Your task to perform on an android device: What is the news today? Image 0: 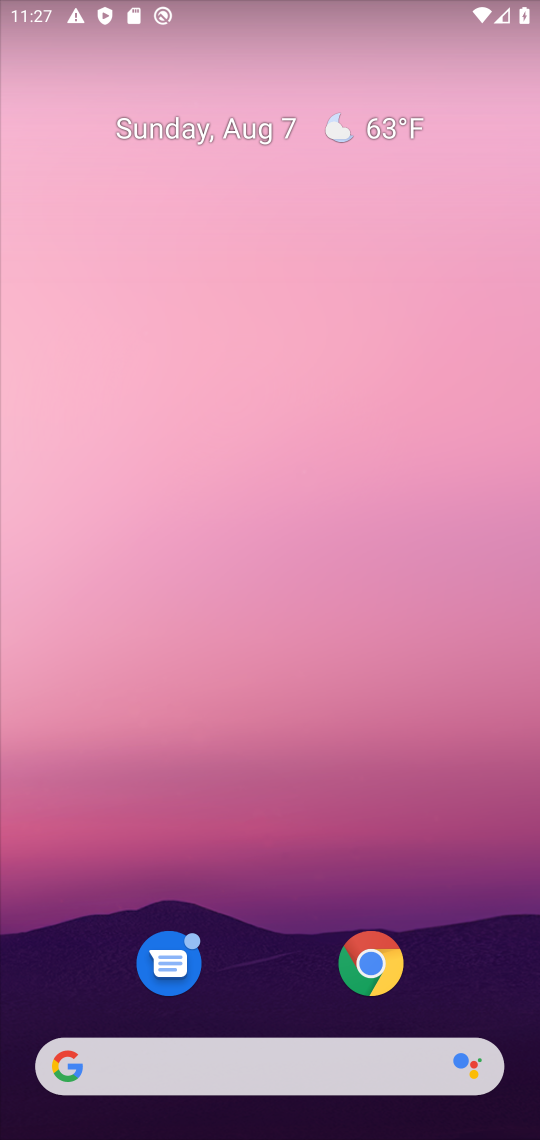
Step 0: drag from (438, 969) to (253, 89)
Your task to perform on an android device: What is the news today? Image 1: 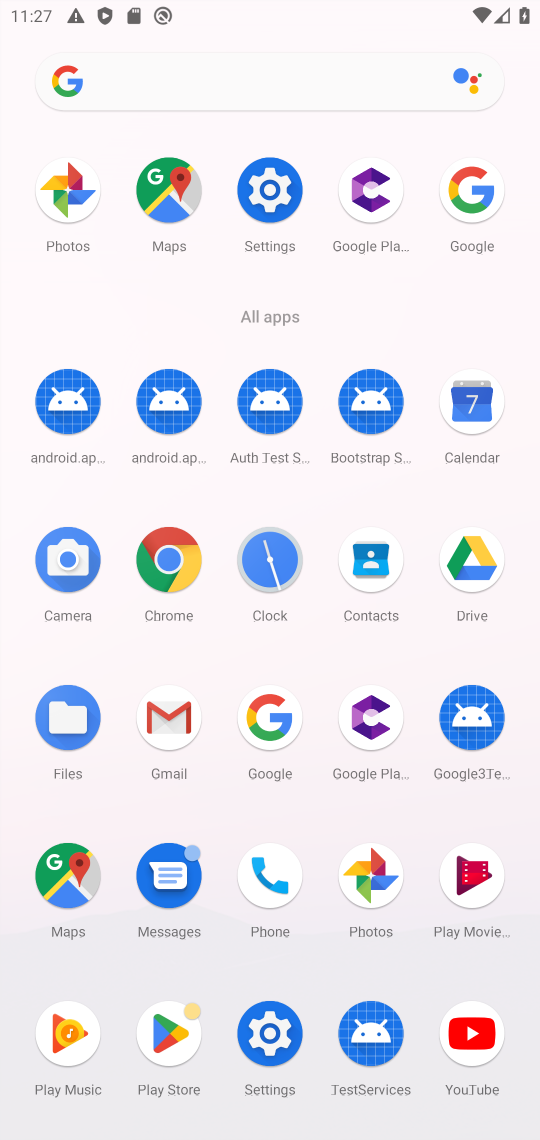
Step 1: click (276, 725)
Your task to perform on an android device: What is the news today? Image 2: 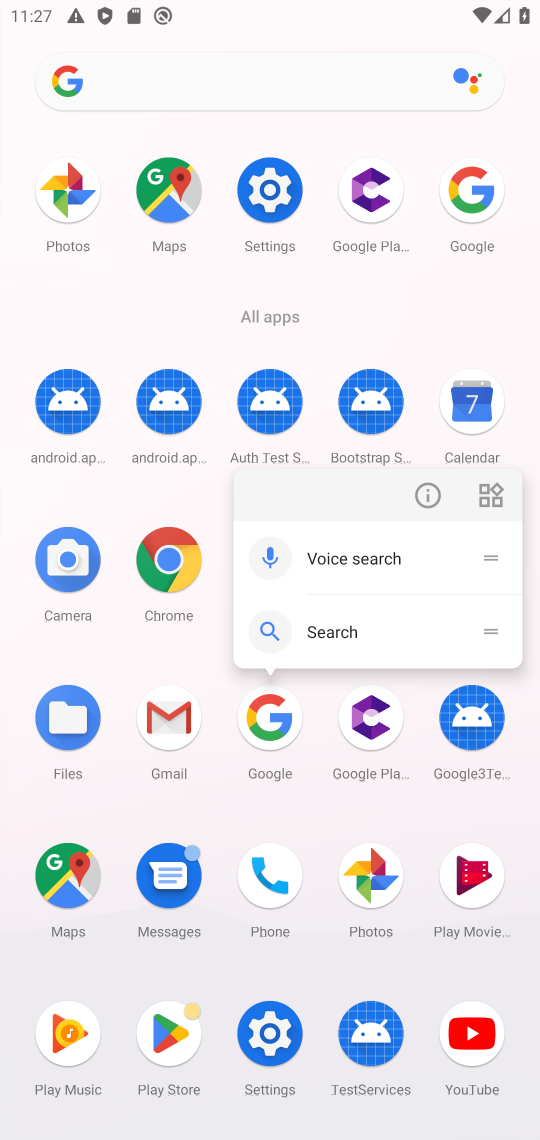
Step 2: click (276, 725)
Your task to perform on an android device: What is the news today? Image 3: 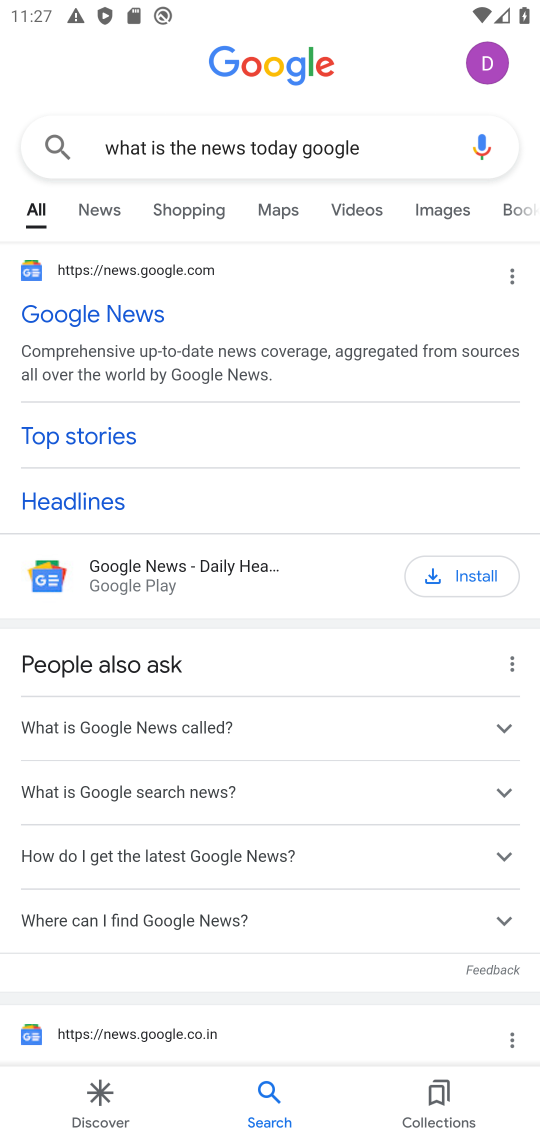
Step 3: press back button
Your task to perform on an android device: What is the news today? Image 4: 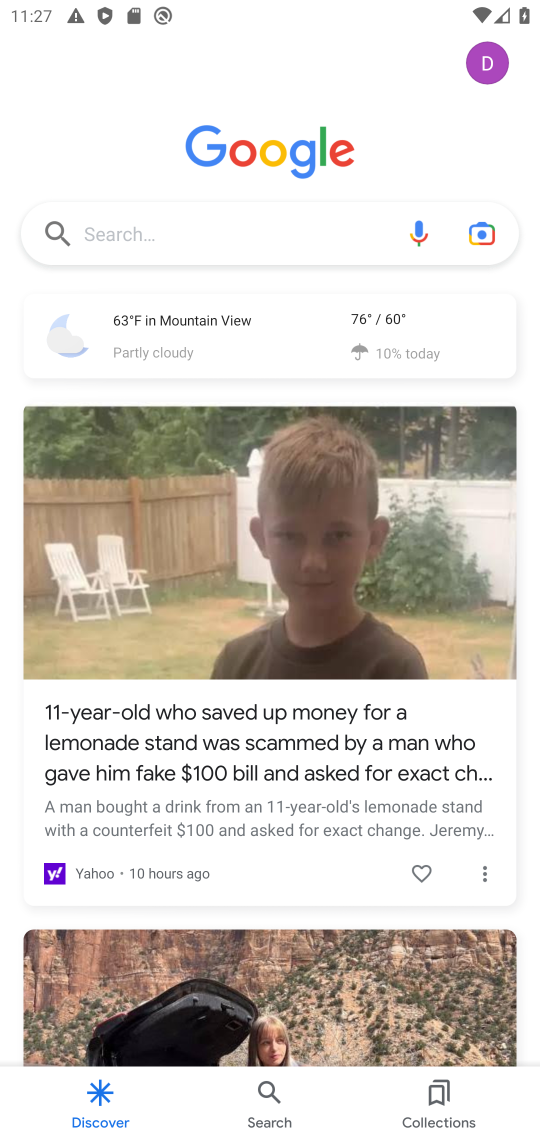
Step 4: click (149, 237)
Your task to perform on an android device: What is the news today? Image 5: 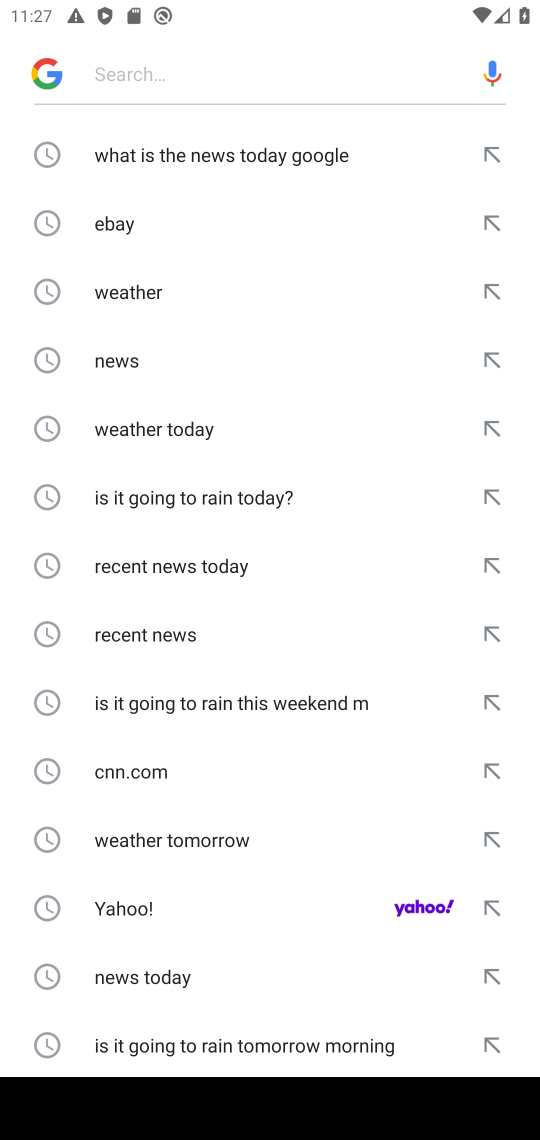
Step 5: type "What is the news today?"
Your task to perform on an android device: What is the news today? Image 6: 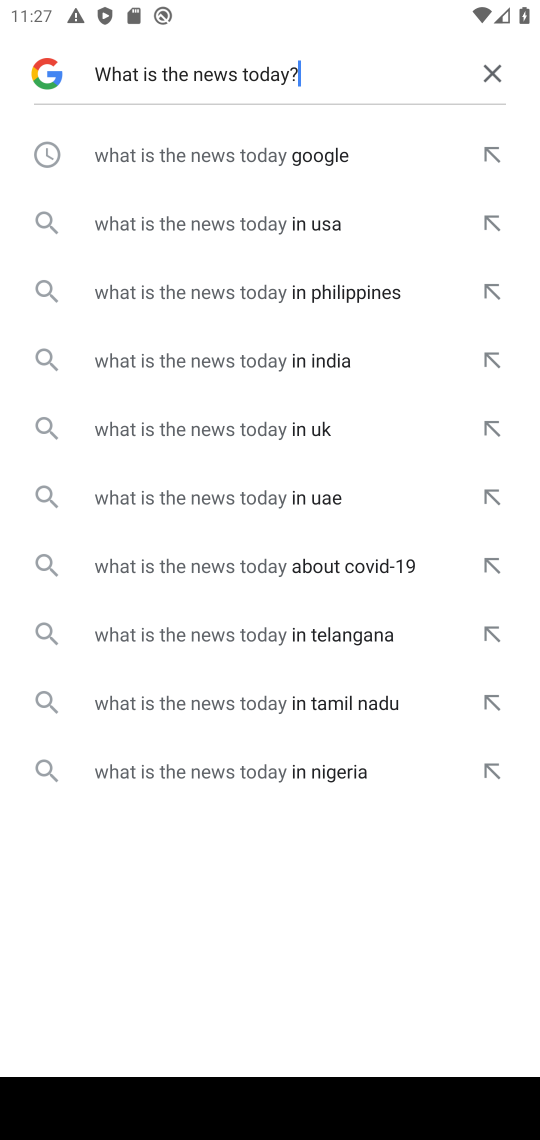
Step 6: task complete